Your task to perform on an android device: Open Amazon Image 0: 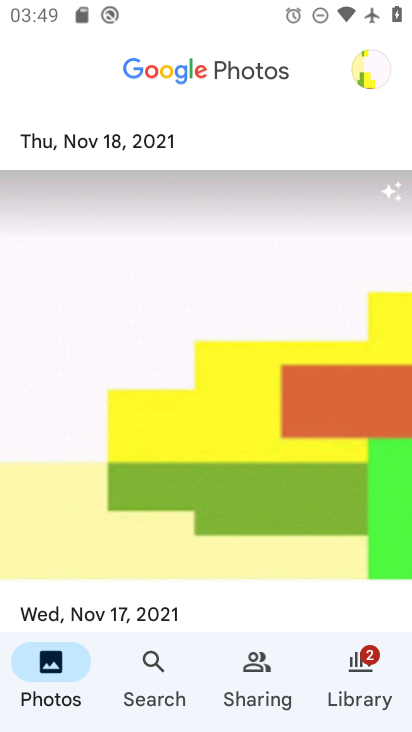
Step 0: press home button
Your task to perform on an android device: Open Amazon Image 1: 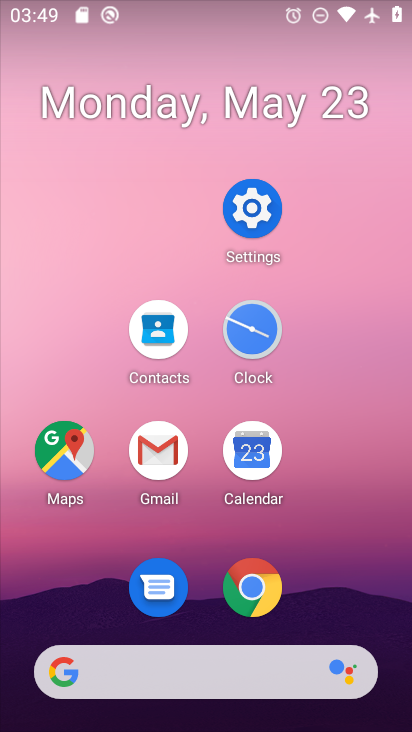
Step 1: click (233, 587)
Your task to perform on an android device: Open Amazon Image 2: 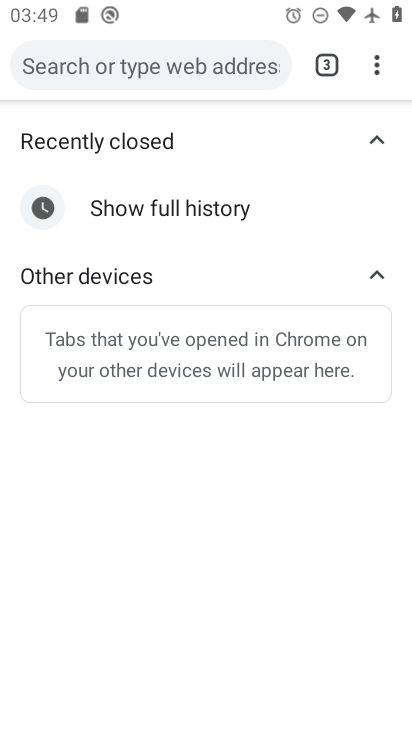
Step 2: click (173, 68)
Your task to perform on an android device: Open Amazon Image 3: 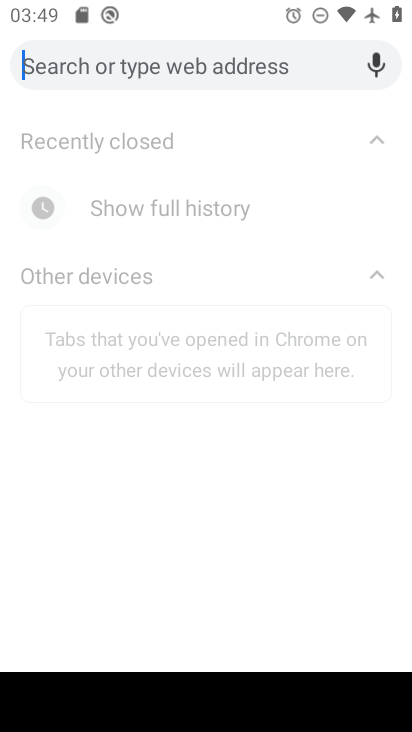
Step 3: type "amazon"
Your task to perform on an android device: Open Amazon Image 4: 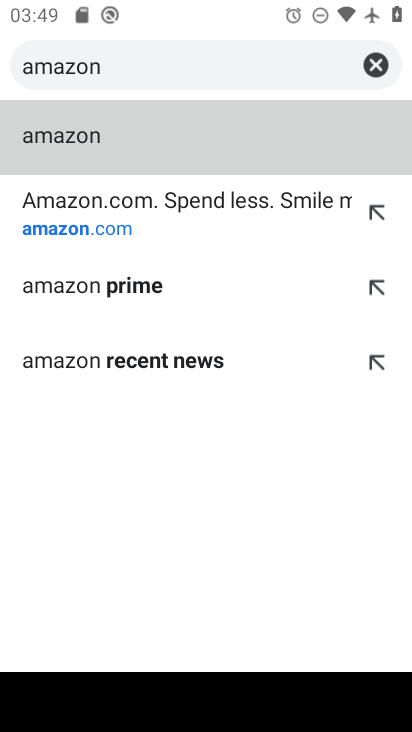
Step 4: click (106, 215)
Your task to perform on an android device: Open Amazon Image 5: 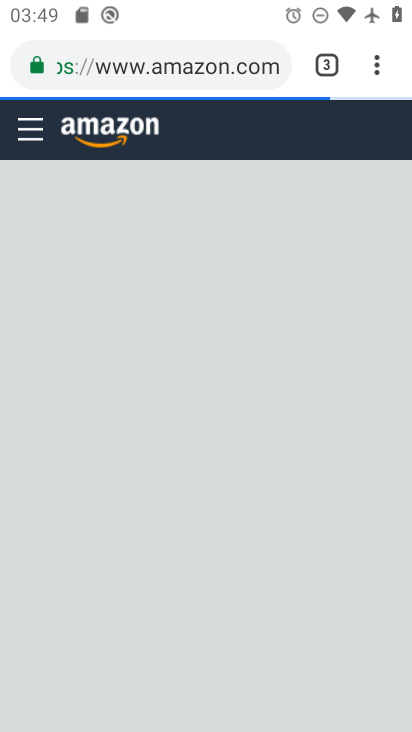
Step 5: task complete